Your task to perform on an android device: turn off sleep mode Image 0: 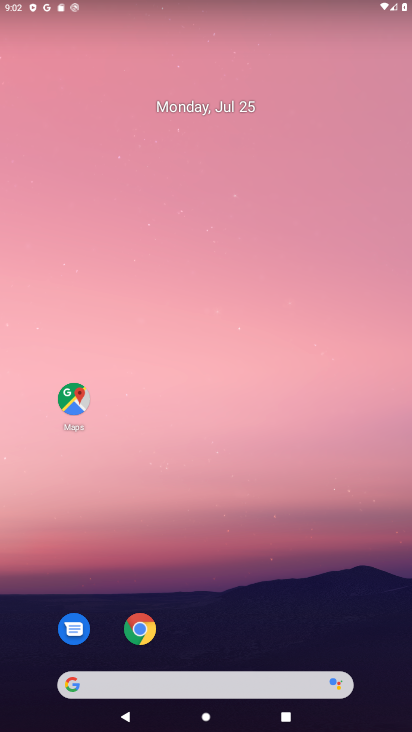
Step 0: drag from (196, 649) to (251, 22)
Your task to perform on an android device: turn off sleep mode Image 1: 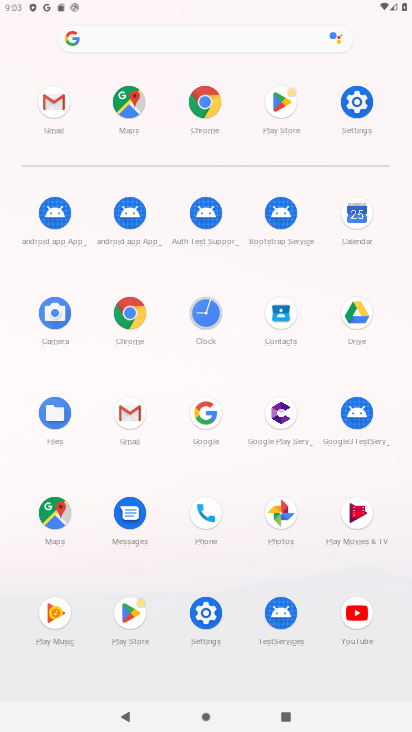
Step 1: click (359, 98)
Your task to perform on an android device: turn off sleep mode Image 2: 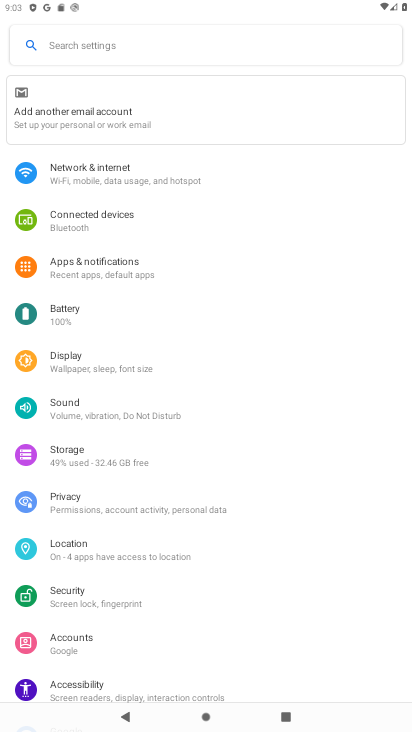
Step 2: task complete